Your task to perform on an android device: open a bookmark in the chrome app Image 0: 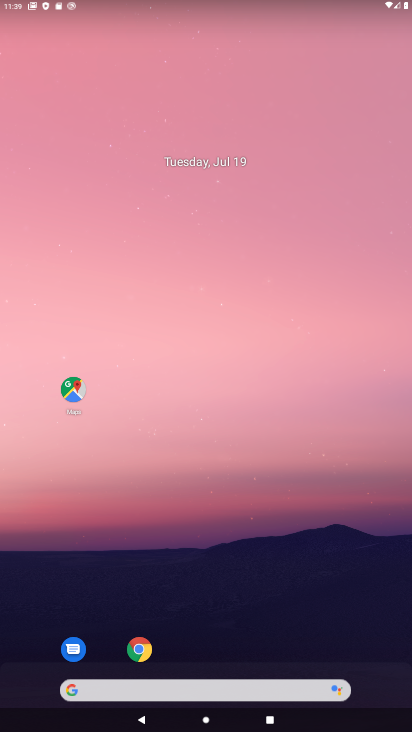
Step 0: drag from (184, 593) to (275, 13)
Your task to perform on an android device: open a bookmark in the chrome app Image 1: 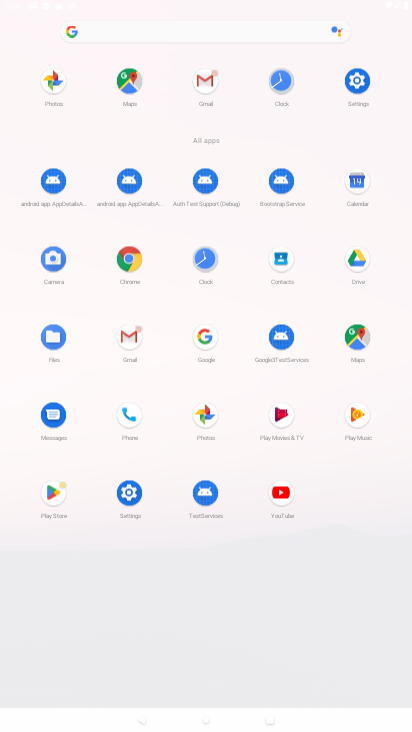
Step 1: click (361, 74)
Your task to perform on an android device: open a bookmark in the chrome app Image 2: 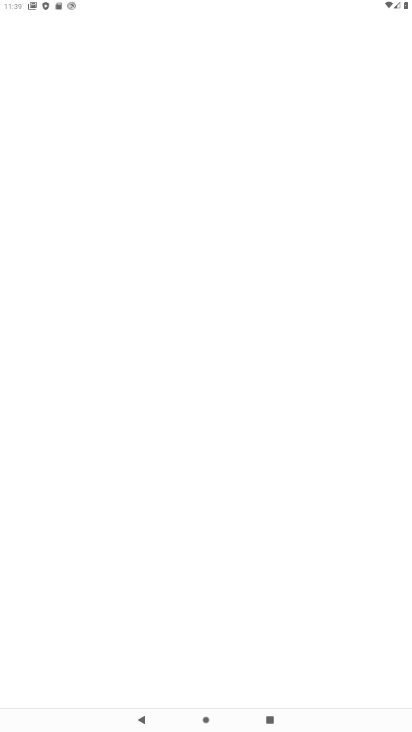
Step 2: press back button
Your task to perform on an android device: open a bookmark in the chrome app Image 3: 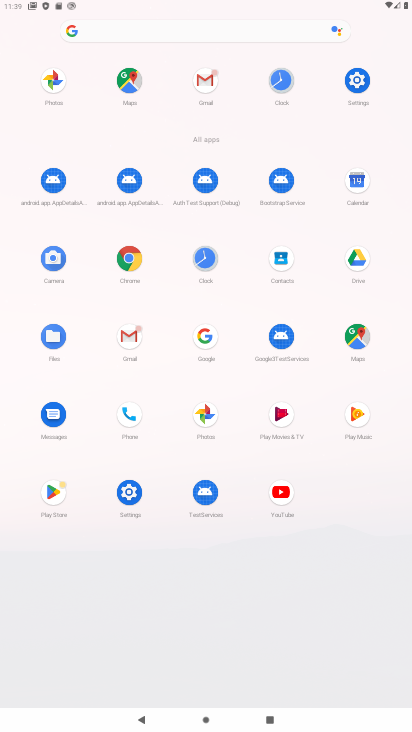
Step 3: press back button
Your task to perform on an android device: open a bookmark in the chrome app Image 4: 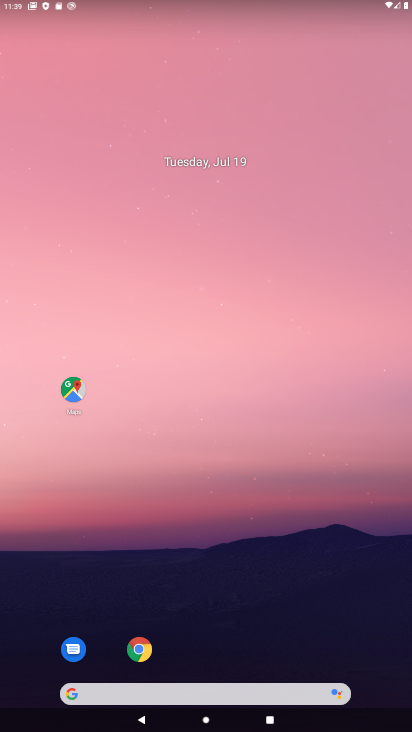
Step 4: drag from (205, 567) to (275, 20)
Your task to perform on an android device: open a bookmark in the chrome app Image 5: 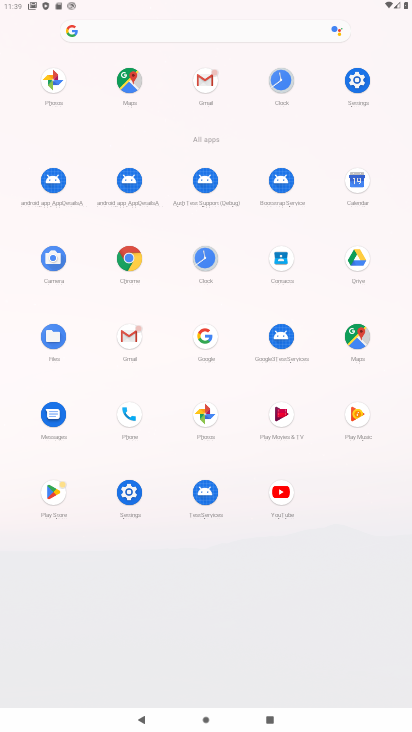
Step 5: click (138, 259)
Your task to perform on an android device: open a bookmark in the chrome app Image 6: 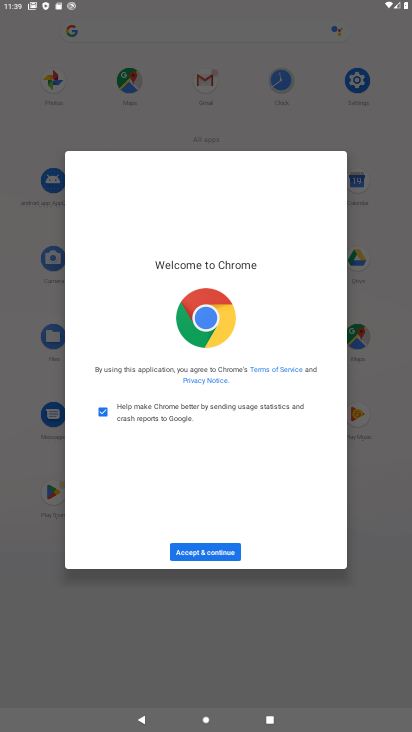
Step 6: click (219, 558)
Your task to perform on an android device: open a bookmark in the chrome app Image 7: 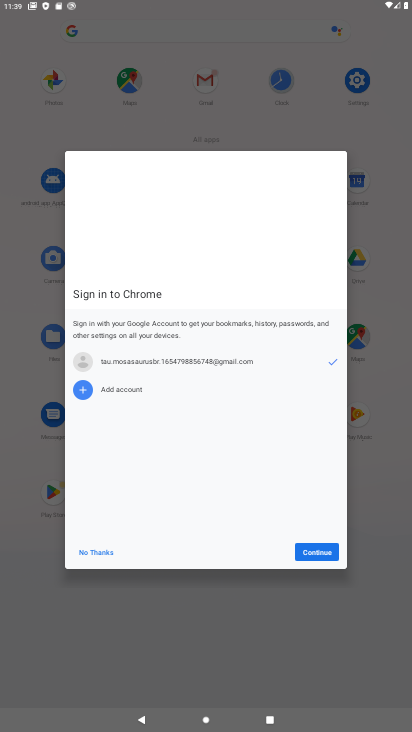
Step 7: click (327, 551)
Your task to perform on an android device: open a bookmark in the chrome app Image 8: 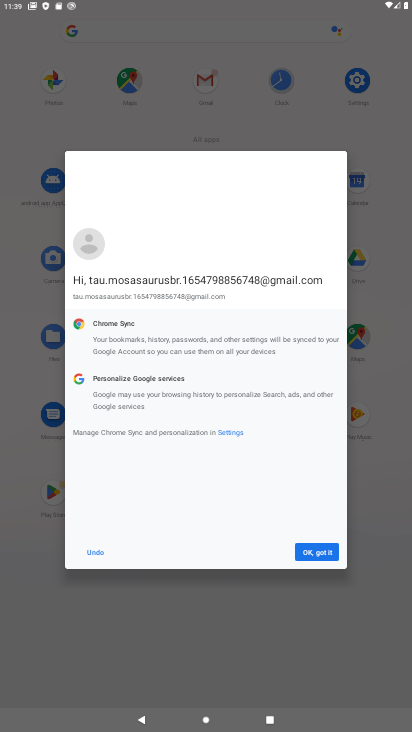
Step 8: click (306, 552)
Your task to perform on an android device: open a bookmark in the chrome app Image 9: 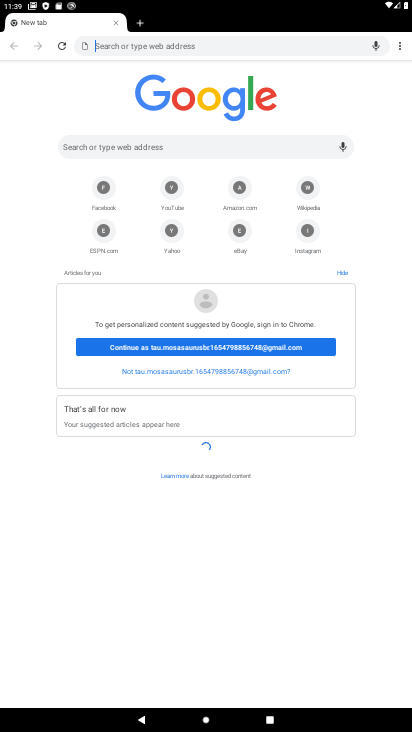
Step 9: drag from (397, 42) to (312, 92)
Your task to perform on an android device: open a bookmark in the chrome app Image 10: 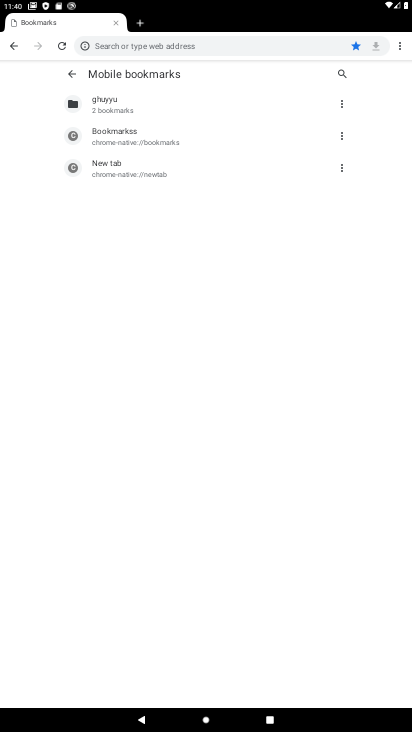
Step 10: click (122, 162)
Your task to perform on an android device: open a bookmark in the chrome app Image 11: 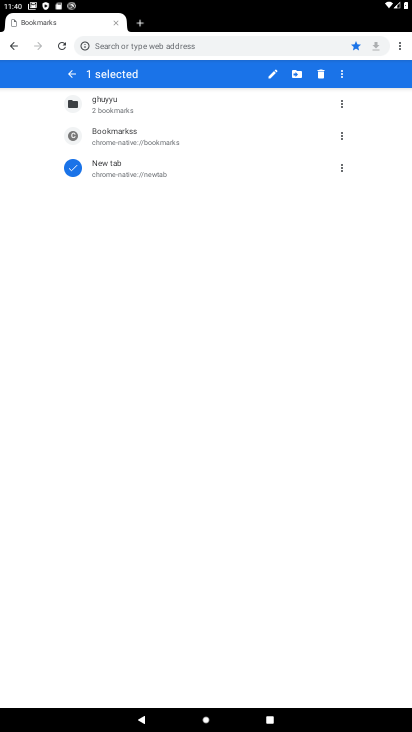
Step 11: click (183, 169)
Your task to perform on an android device: open a bookmark in the chrome app Image 12: 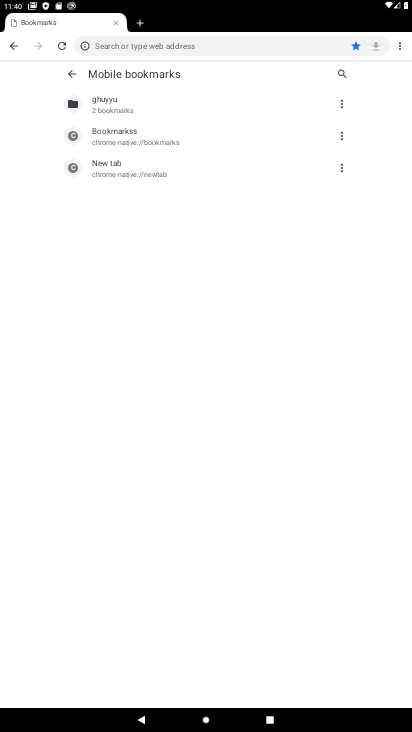
Step 12: click (93, 157)
Your task to perform on an android device: open a bookmark in the chrome app Image 13: 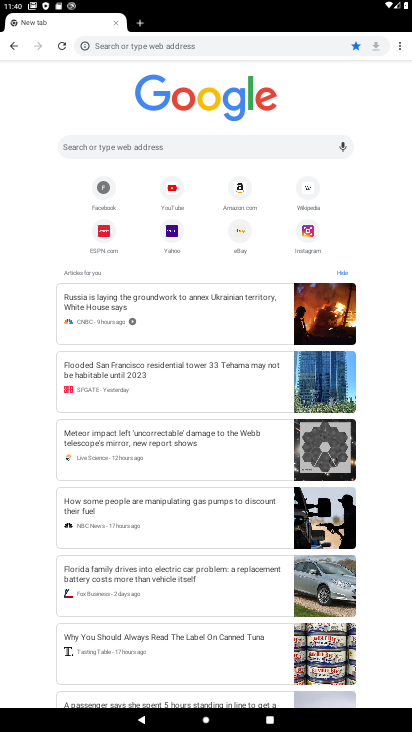
Step 13: task complete